Your task to perform on an android device: turn on priority inbox in the gmail app Image 0: 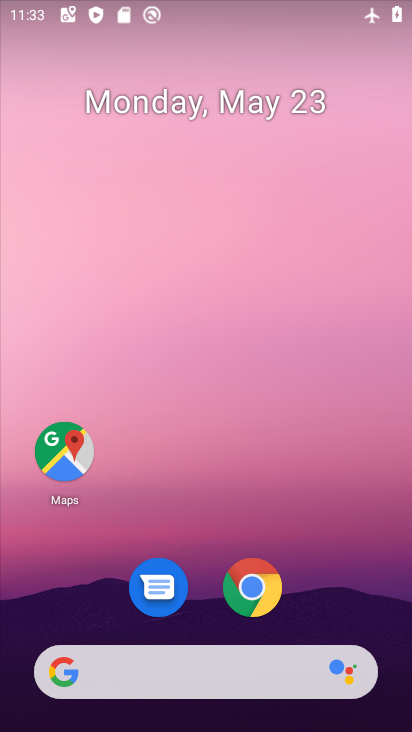
Step 0: drag from (377, 616) to (297, 209)
Your task to perform on an android device: turn on priority inbox in the gmail app Image 1: 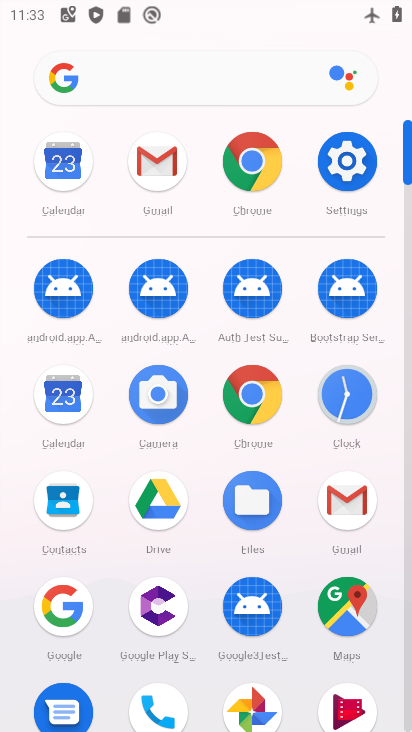
Step 1: click (150, 171)
Your task to perform on an android device: turn on priority inbox in the gmail app Image 2: 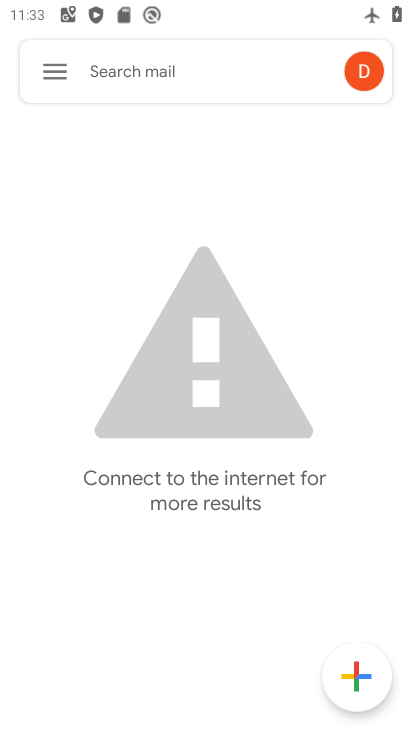
Step 2: click (60, 63)
Your task to perform on an android device: turn on priority inbox in the gmail app Image 3: 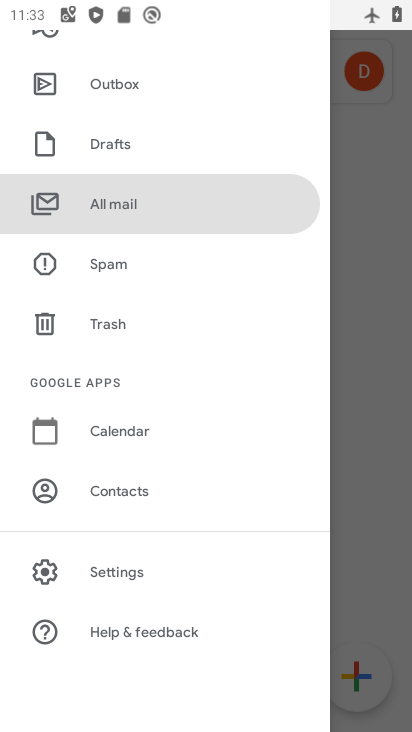
Step 3: click (134, 579)
Your task to perform on an android device: turn on priority inbox in the gmail app Image 4: 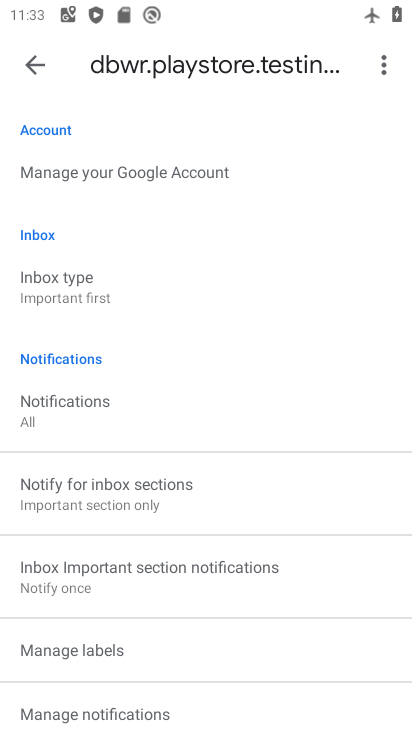
Step 4: click (134, 299)
Your task to perform on an android device: turn on priority inbox in the gmail app Image 5: 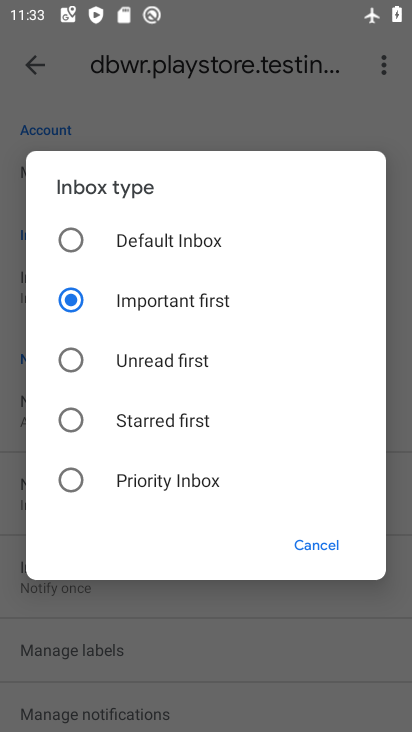
Step 5: click (145, 488)
Your task to perform on an android device: turn on priority inbox in the gmail app Image 6: 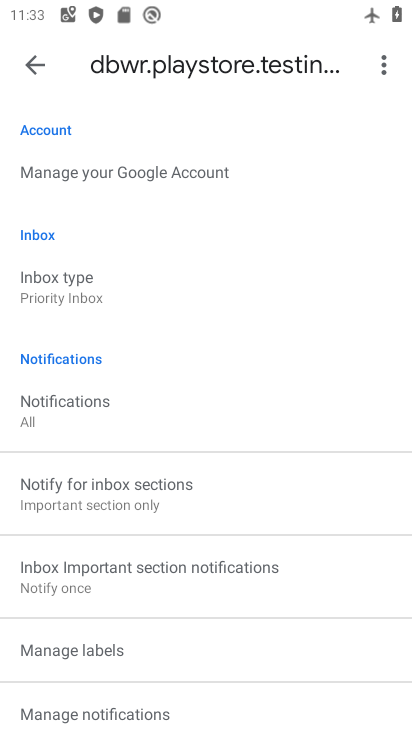
Step 6: task complete